Your task to perform on an android device: turn off smart reply in the gmail app Image 0: 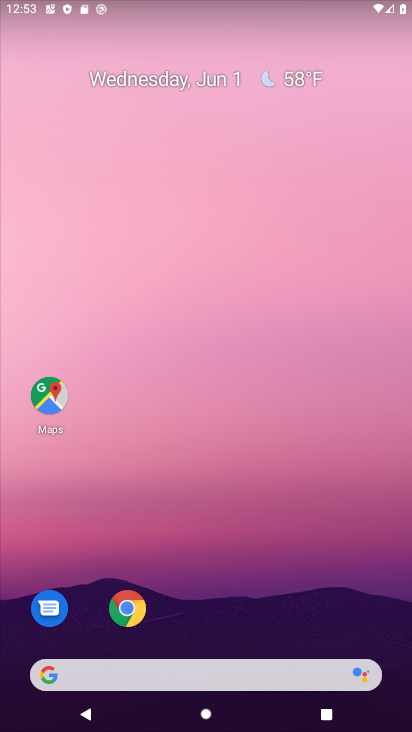
Step 0: drag from (232, 581) to (200, 171)
Your task to perform on an android device: turn off smart reply in the gmail app Image 1: 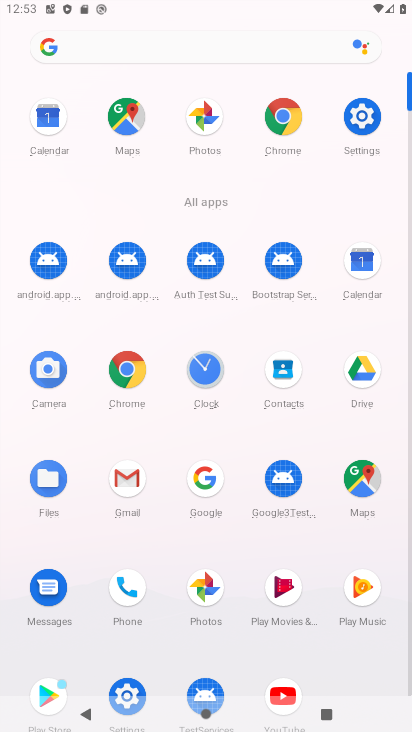
Step 1: click (127, 475)
Your task to perform on an android device: turn off smart reply in the gmail app Image 2: 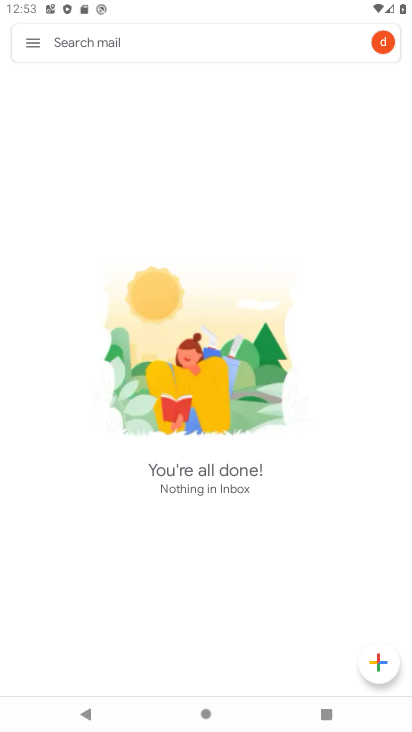
Step 2: click (27, 36)
Your task to perform on an android device: turn off smart reply in the gmail app Image 3: 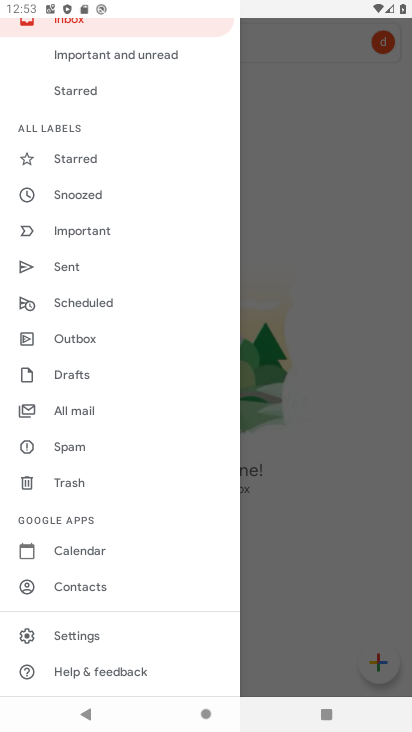
Step 3: click (68, 639)
Your task to perform on an android device: turn off smart reply in the gmail app Image 4: 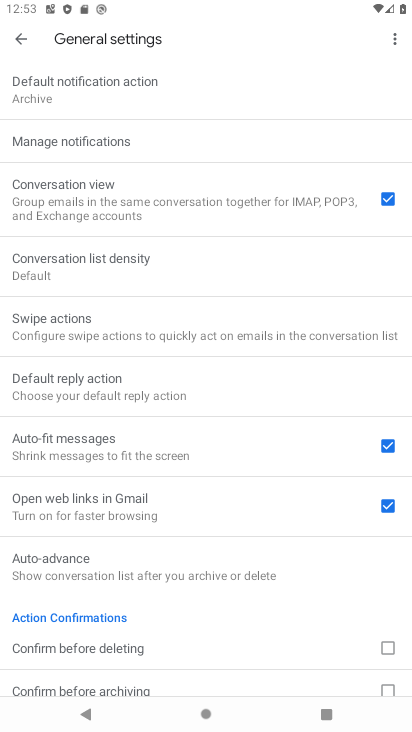
Step 4: drag from (118, 641) to (181, 271)
Your task to perform on an android device: turn off smart reply in the gmail app Image 5: 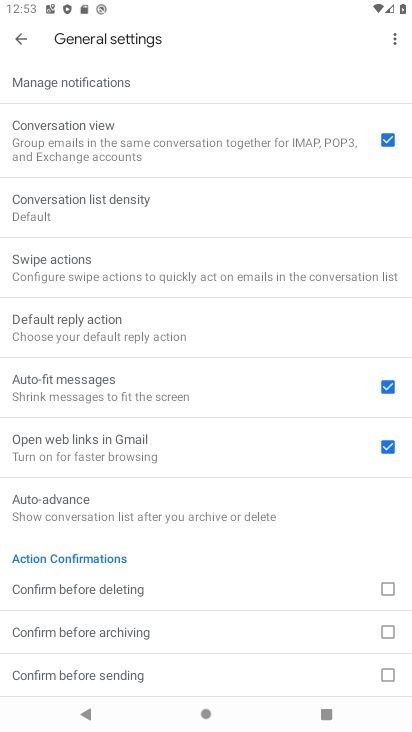
Step 5: drag from (236, 227) to (165, 609)
Your task to perform on an android device: turn off smart reply in the gmail app Image 6: 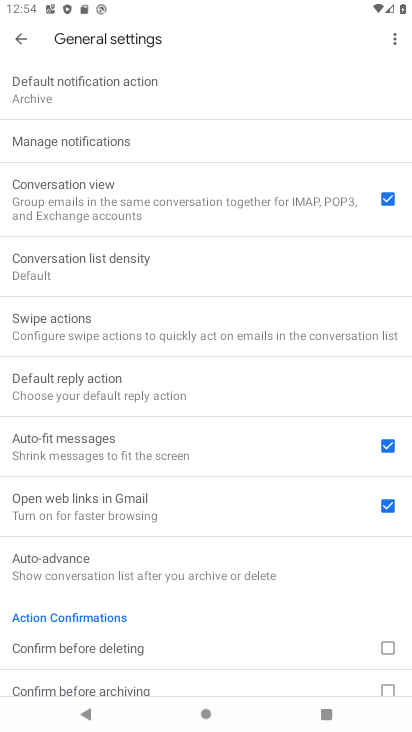
Step 6: click (400, 38)
Your task to perform on an android device: turn off smart reply in the gmail app Image 7: 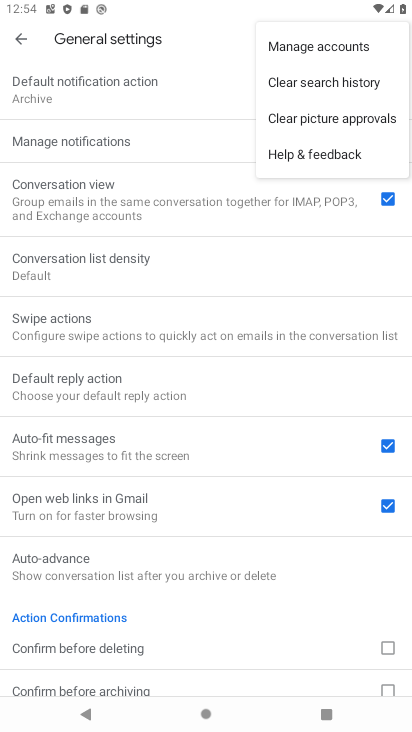
Step 7: click (79, 309)
Your task to perform on an android device: turn off smart reply in the gmail app Image 8: 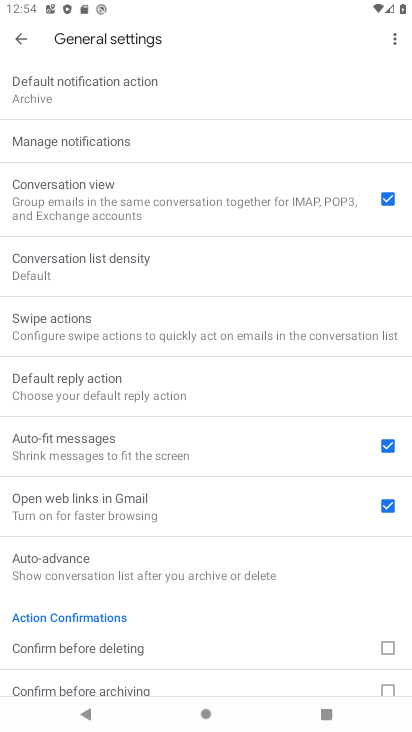
Step 8: click (165, 352)
Your task to perform on an android device: turn off smart reply in the gmail app Image 9: 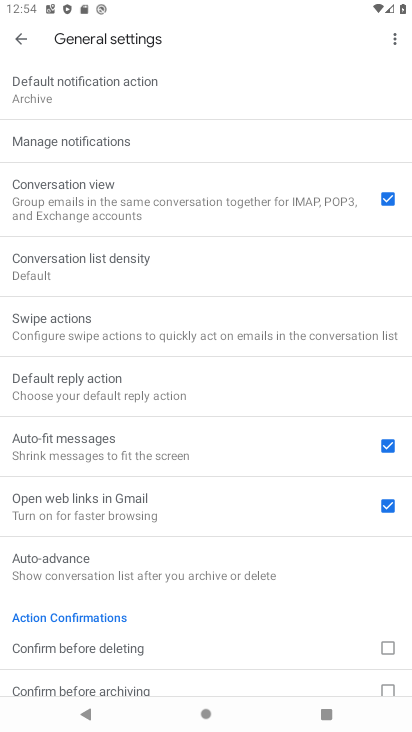
Step 9: click (165, 352)
Your task to perform on an android device: turn off smart reply in the gmail app Image 10: 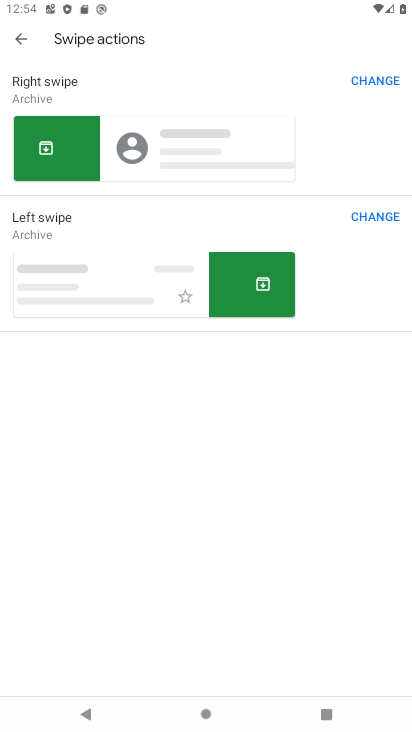
Step 10: task complete